Your task to perform on an android device: turn on airplane mode Image 0: 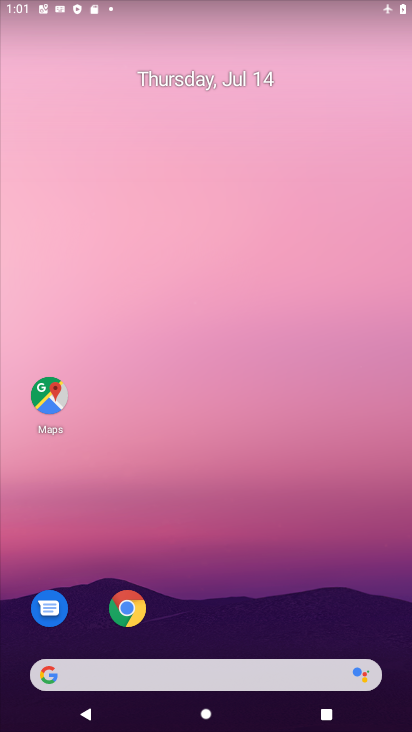
Step 0: drag from (380, 570) to (339, 82)
Your task to perform on an android device: turn on airplane mode Image 1: 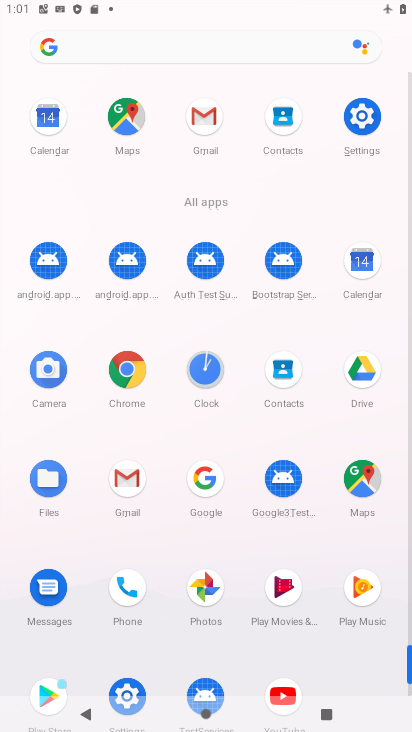
Step 1: click (410, 614)
Your task to perform on an android device: turn on airplane mode Image 2: 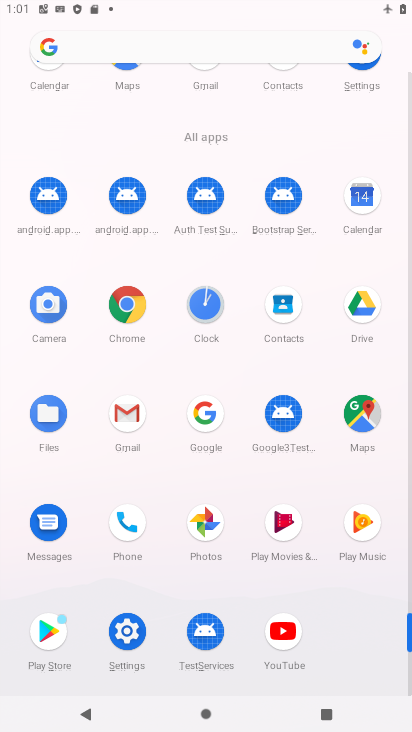
Step 2: click (127, 631)
Your task to perform on an android device: turn on airplane mode Image 3: 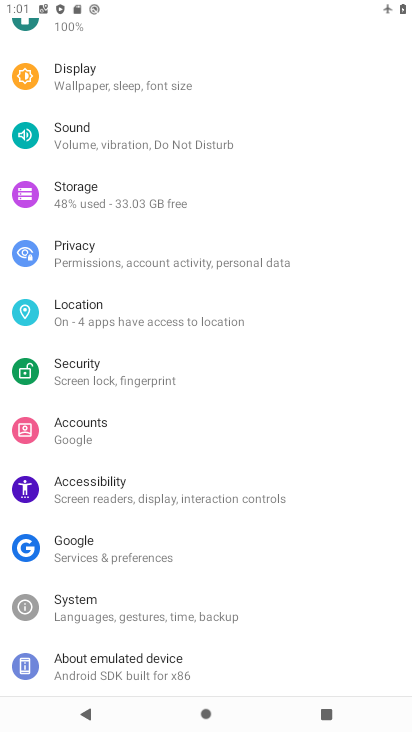
Step 3: drag from (323, 162) to (313, 399)
Your task to perform on an android device: turn on airplane mode Image 4: 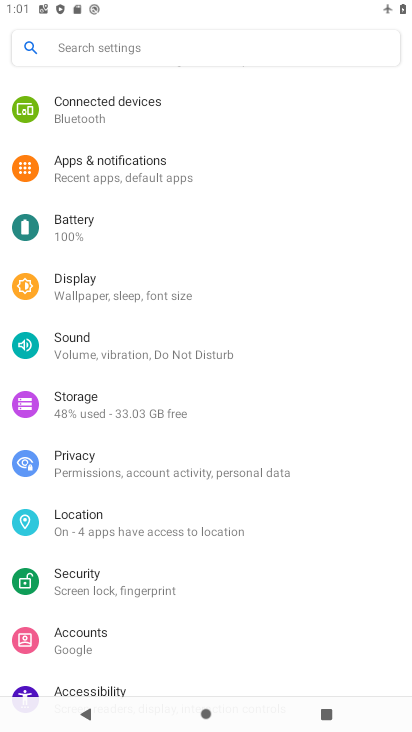
Step 4: drag from (292, 128) to (296, 420)
Your task to perform on an android device: turn on airplane mode Image 5: 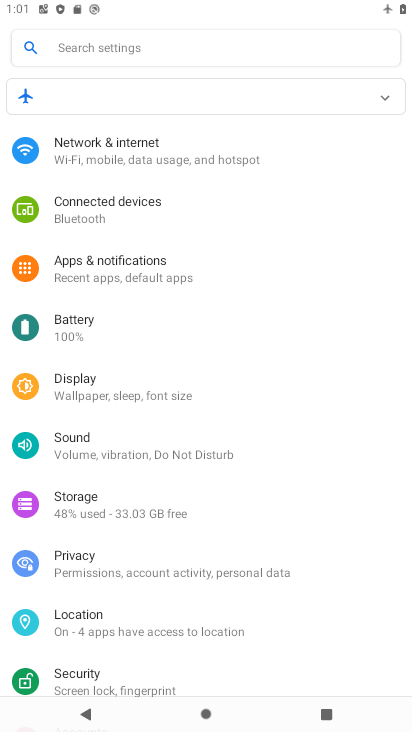
Step 5: click (94, 145)
Your task to perform on an android device: turn on airplane mode Image 6: 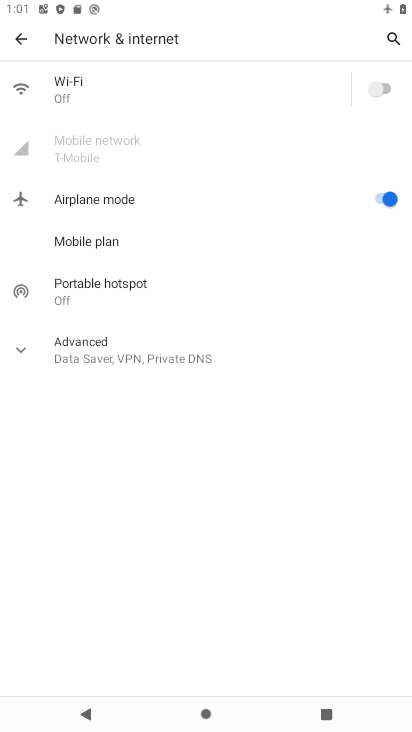
Step 6: task complete